Your task to perform on an android device: Open eBay Image 0: 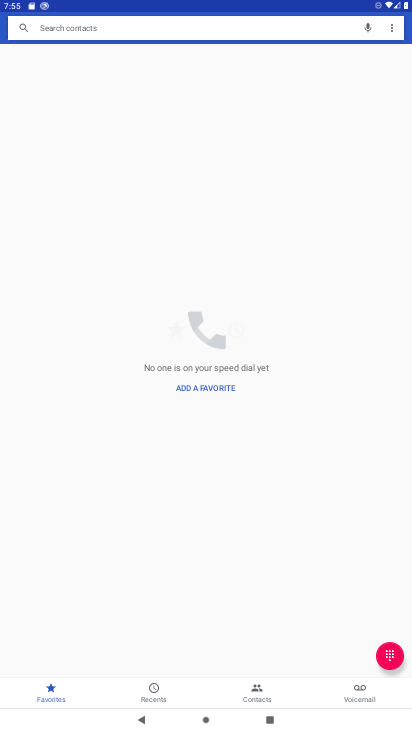
Step 0: drag from (214, 686) to (168, 281)
Your task to perform on an android device: Open eBay Image 1: 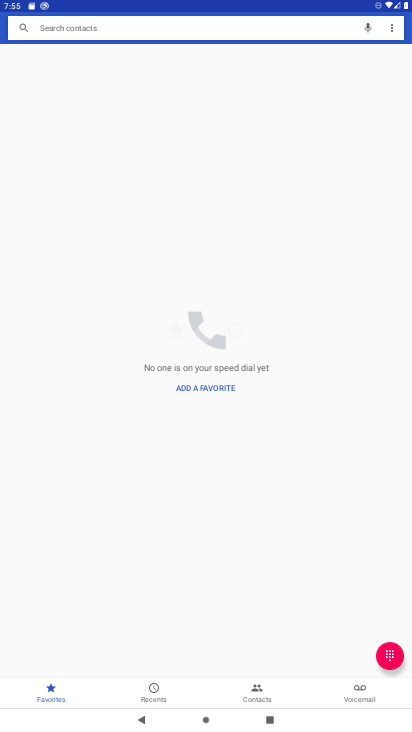
Step 1: press home button
Your task to perform on an android device: Open eBay Image 2: 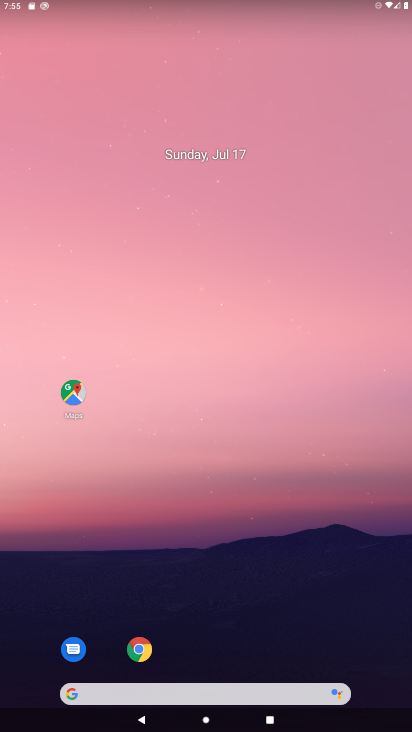
Step 2: drag from (209, 678) to (126, 0)
Your task to perform on an android device: Open eBay Image 3: 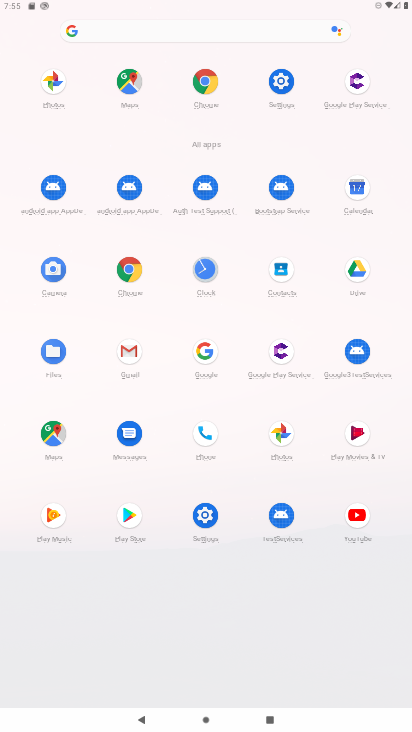
Step 3: click (128, 284)
Your task to perform on an android device: Open eBay Image 4: 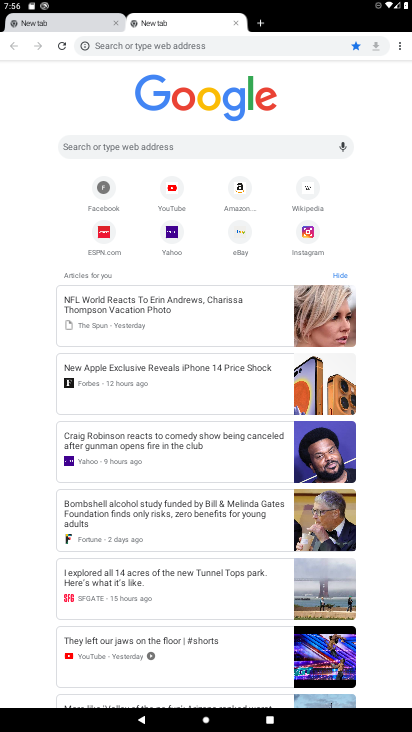
Step 4: click (240, 239)
Your task to perform on an android device: Open eBay Image 5: 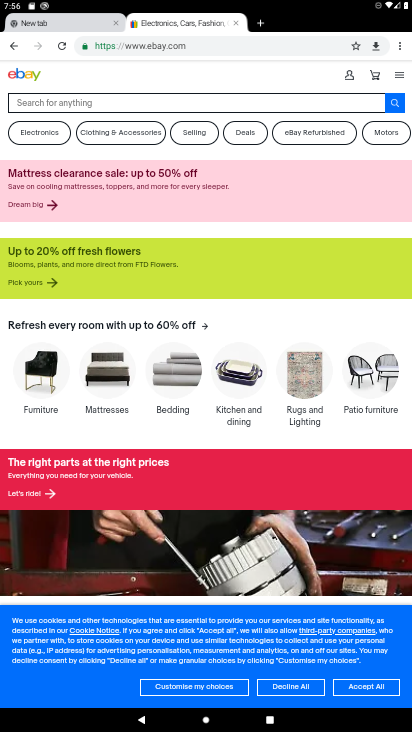
Step 5: task complete